Your task to perform on an android device: Set the phone to "Do not disturb". Image 0: 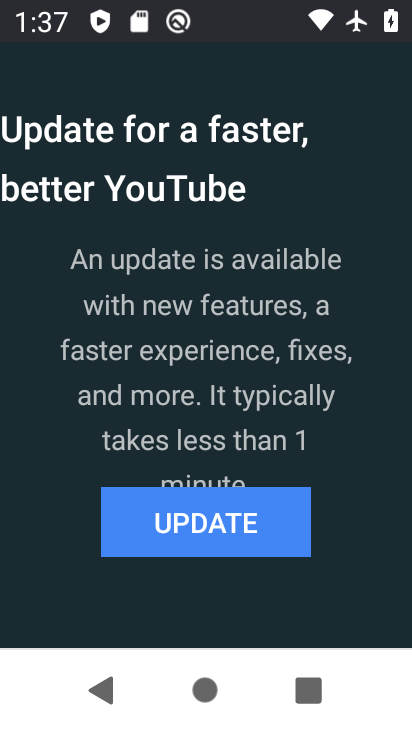
Step 0: press back button
Your task to perform on an android device: Set the phone to "Do not disturb". Image 1: 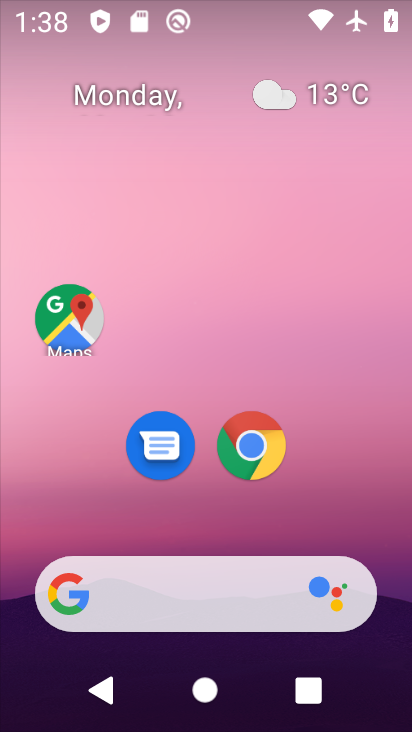
Step 1: drag from (233, 2) to (286, 562)
Your task to perform on an android device: Set the phone to "Do not disturb". Image 2: 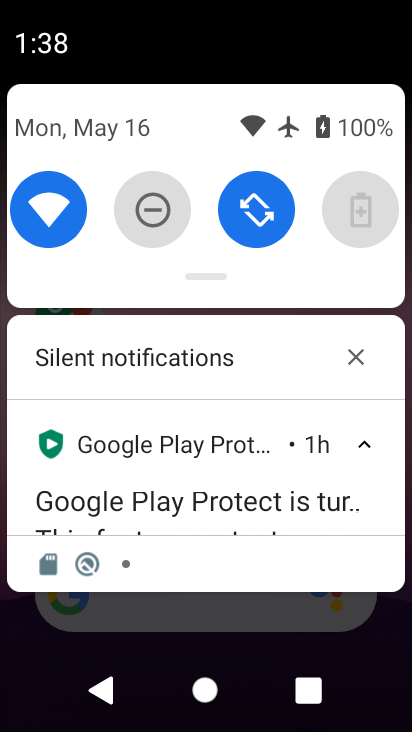
Step 2: click (149, 199)
Your task to perform on an android device: Set the phone to "Do not disturb". Image 3: 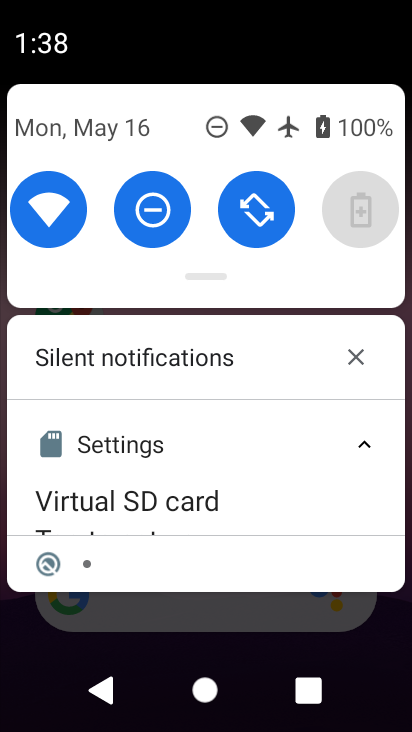
Step 3: task complete